Your task to perform on an android device: Go to privacy settings Image 0: 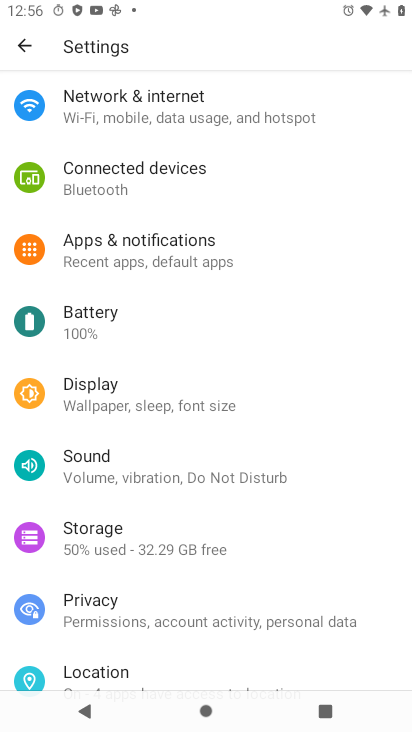
Step 0: press home button
Your task to perform on an android device: Go to privacy settings Image 1: 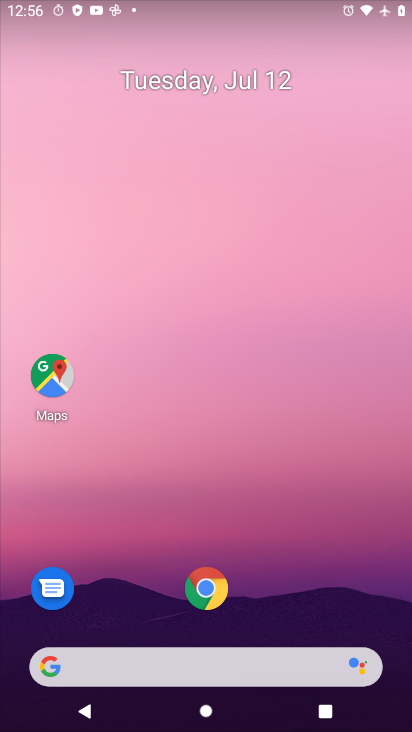
Step 1: drag from (220, 664) to (278, 122)
Your task to perform on an android device: Go to privacy settings Image 2: 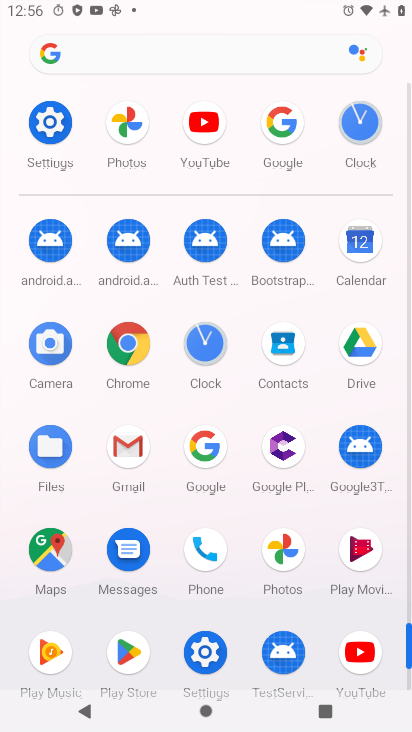
Step 2: click (49, 122)
Your task to perform on an android device: Go to privacy settings Image 3: 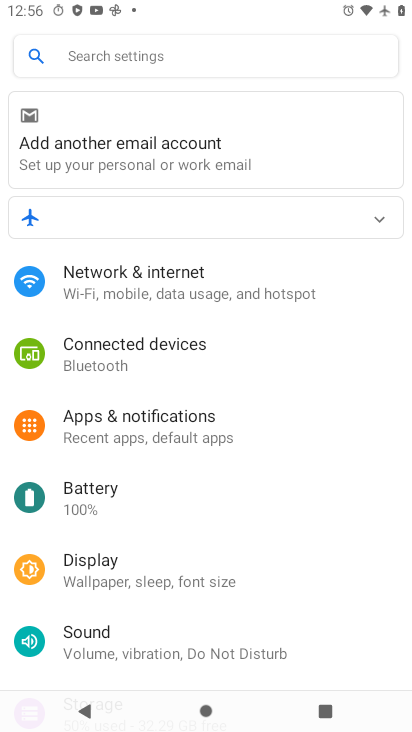
Step 3: drag from (228, 553) to (252, 148)
Your task to perform on an android device: Go to privacy settings Image 4: 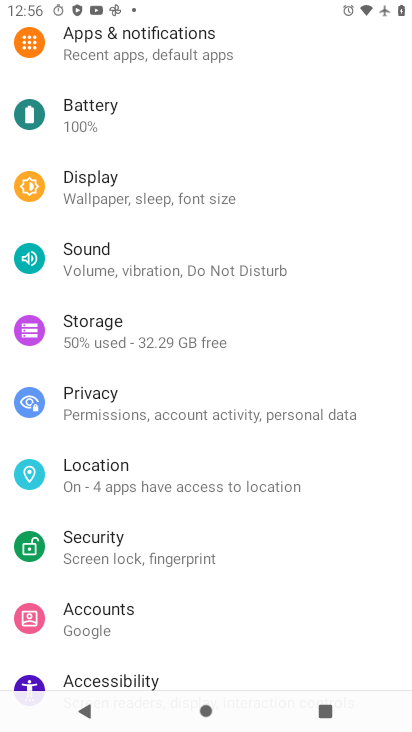
Step 4: click (134, 407)
Your task to perform on an android device: Go to privacy settings Image 5: 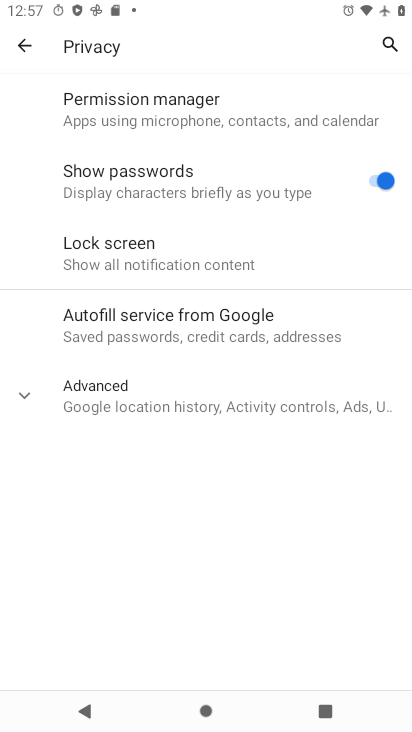
Step 5: task complete